Your task to perform on an android device: What time is it? Image 0: 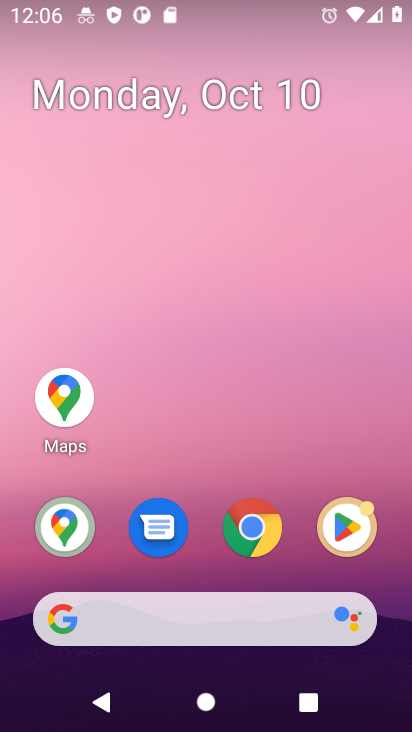
Step 0: click (235, 515)
Your task to perform on an android device: What time is it? Image 1: 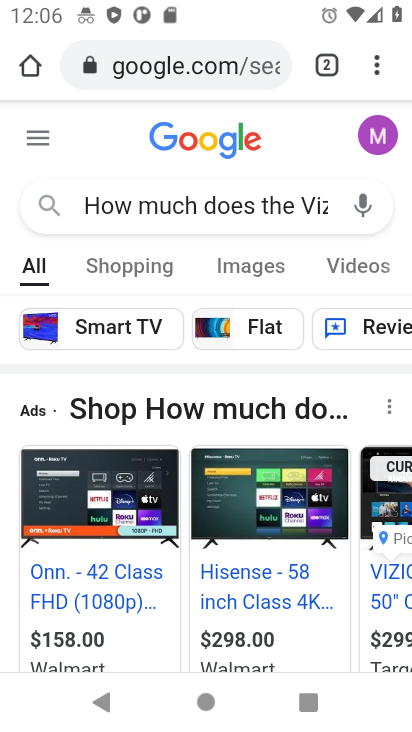
Step 1: click (187, 73)
Your task to perform on an android device: What time is it? Image 2: 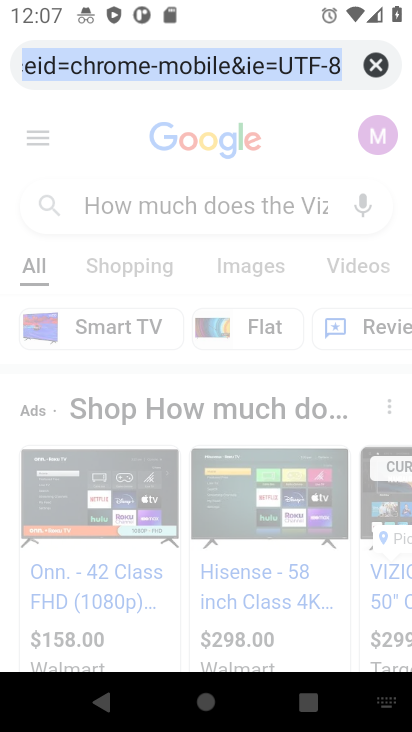
Step 2: type "What time is it?"
Your task to perform on an android device: What time is it? Image 3: 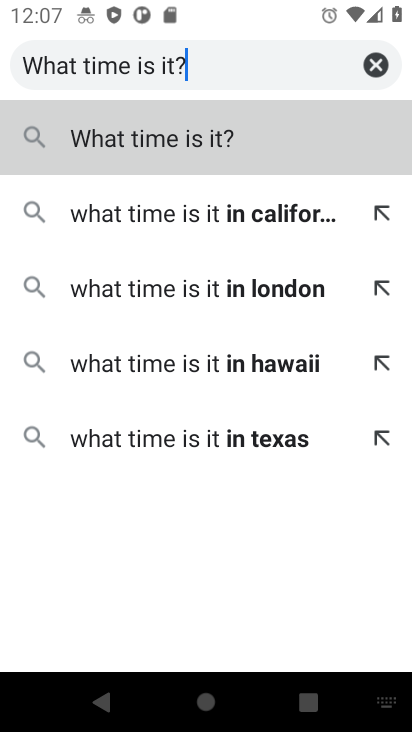
Step 3: click (221, 151)
Your task to perform on an android device: What time is it? Image 4: 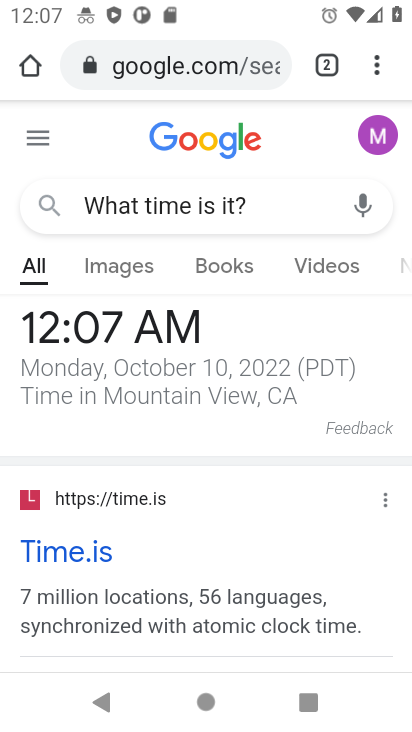
Step 4: task complete